Your task to perform on an android device: change notification settings in the gmail app Image 0: 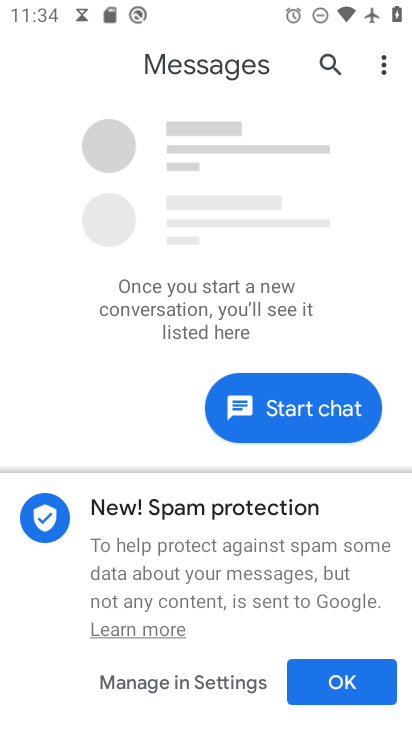
Step 0: press back button
Your task to perform on an android device: change notification settings in the gmail app Image 1: 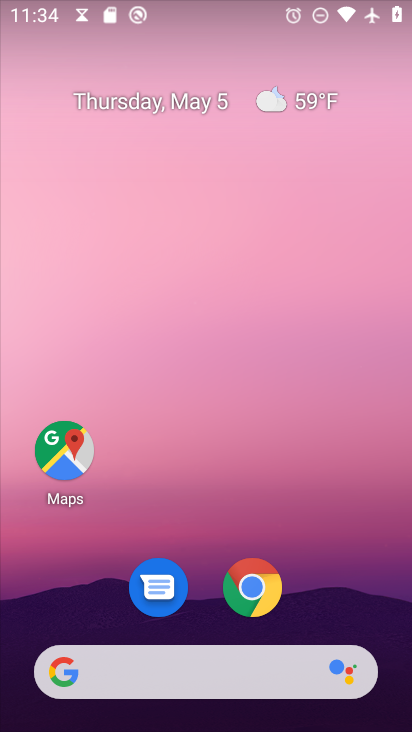
Step 1: drag from (352, 561) to (258, 10)
Your task to perform on an android device: change notification settings in the gmail app Image 2: 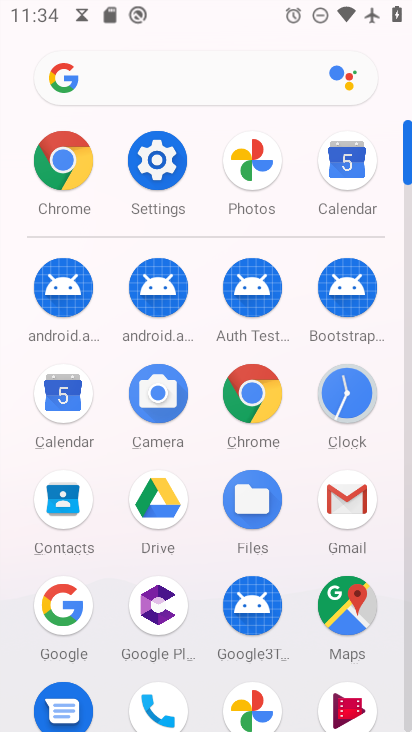
Step 2: click (349, 491)
Your task to perform on an android device: change notification settings in the gmail app Image 3: 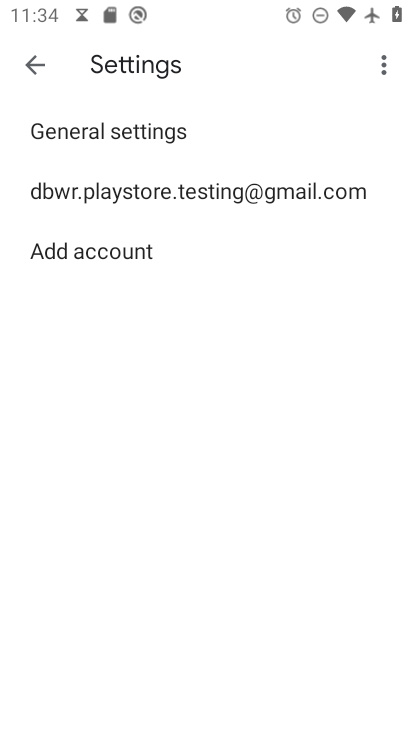
Step 3: click (115, 196)
Your task to perform on an android device: change notification settings in the gmail app Image 4: 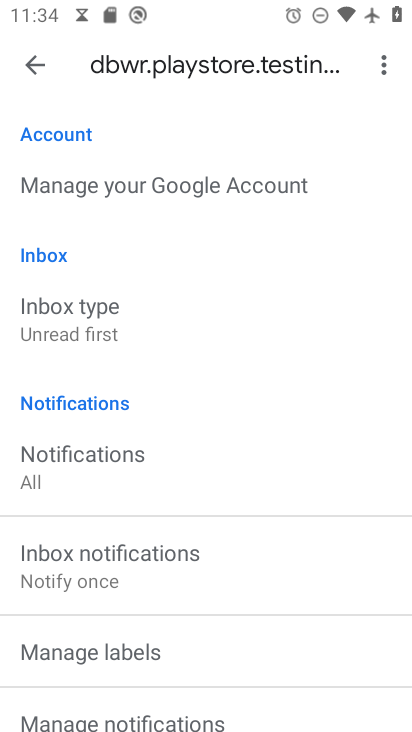
Step 4: drag from (134, 669) to (146, 319)
Your task to perform on an android device: change notification settings in the gmail app Image 5: 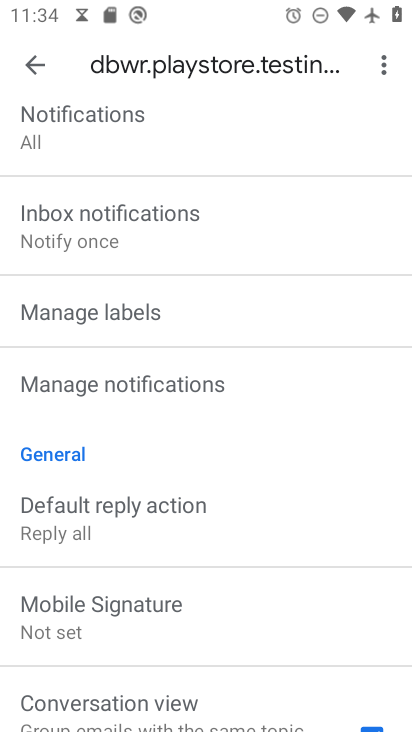
Step 5: click (158, 374)
Your task to perform on an android device: change notification settings in the gmail app Image 6: 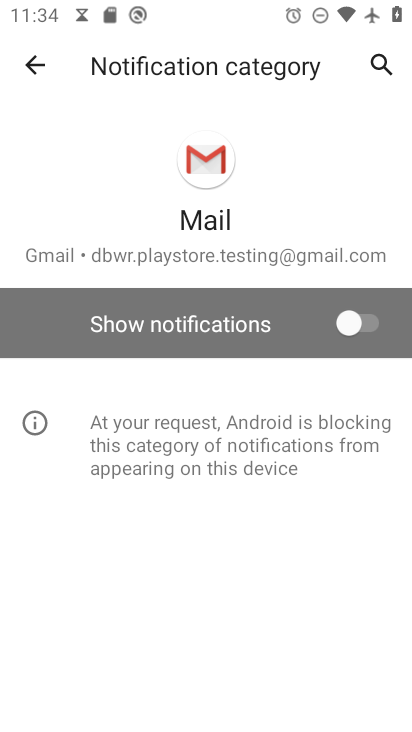
Step 6: click (348, 337)
Your task to perform on an android device: change notification settings in the gmail app Image 7: 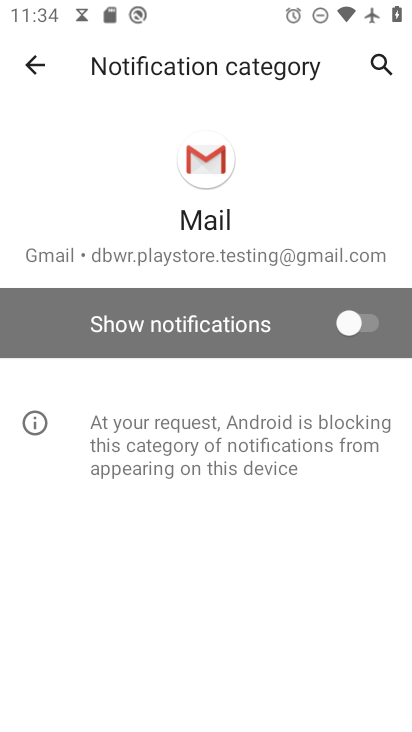
Step 7: click (353, 315)
Your task to perform on an android device: change notification settings in the gmail app Image 8: 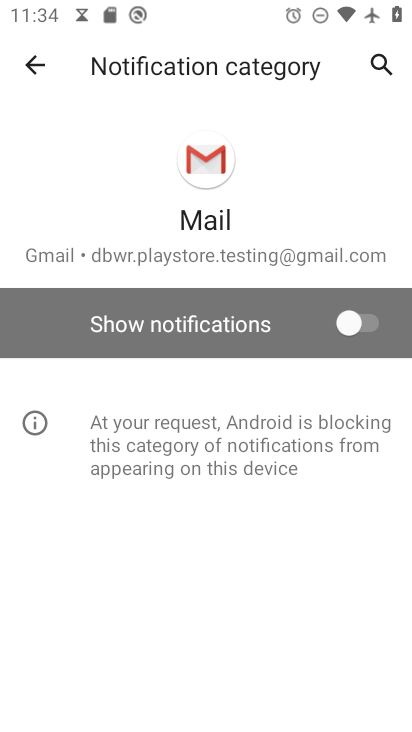
Step 8: click (355, 315)
Your task to perform on an android device: change notification settings in the gmail app Image 9: 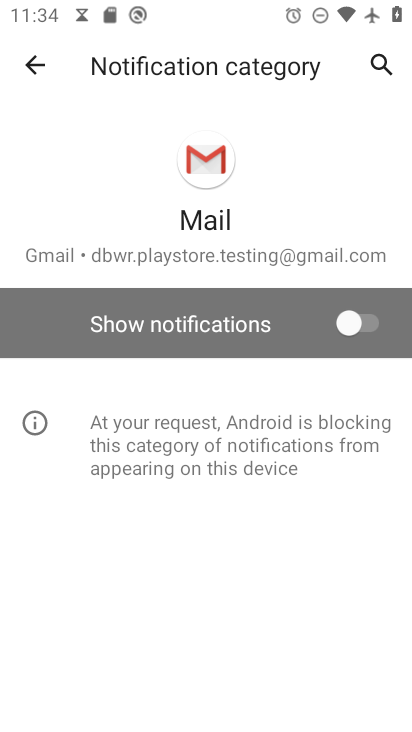
Step 9: click (355, 315)
Your task to perform on an android device: change notification settings in the gmail app Image 10: 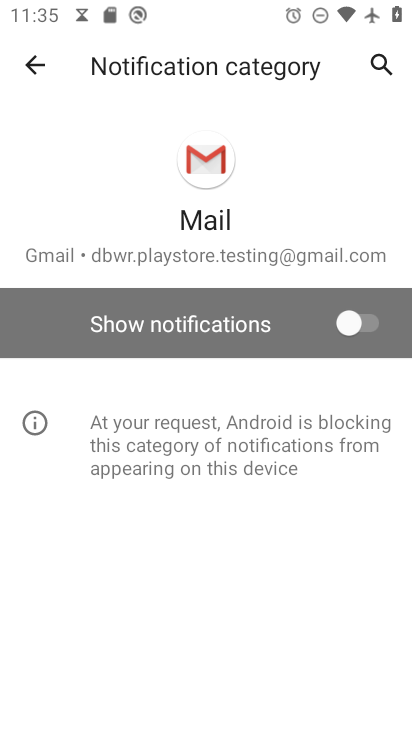
Step 10: task complete